Your task to perform on an android device: turn on data saver in the chrome app Image 0: 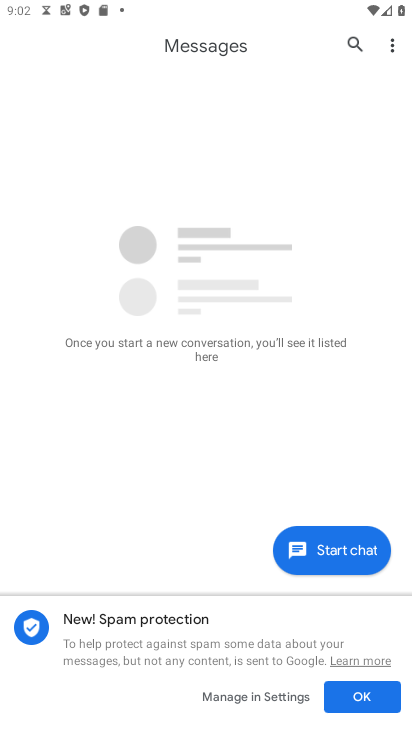
Step 0: press home button
Your task to perform on an android device: turn on data saver in the chrome app Image 1: 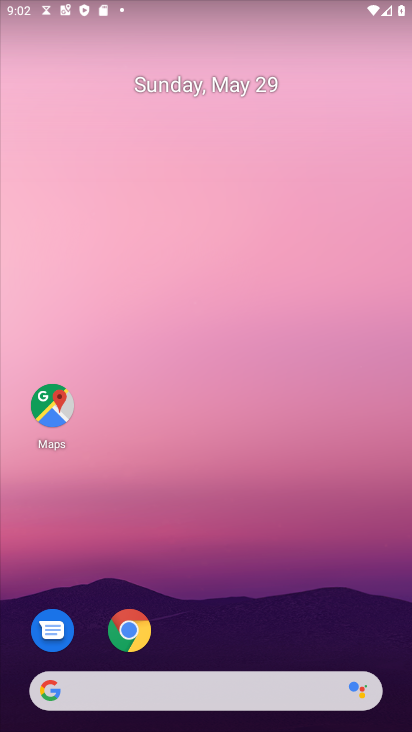
Step 1: click (124, 636)
Your task to perform on an android device: turn on data saver in the chrome app Image 2: 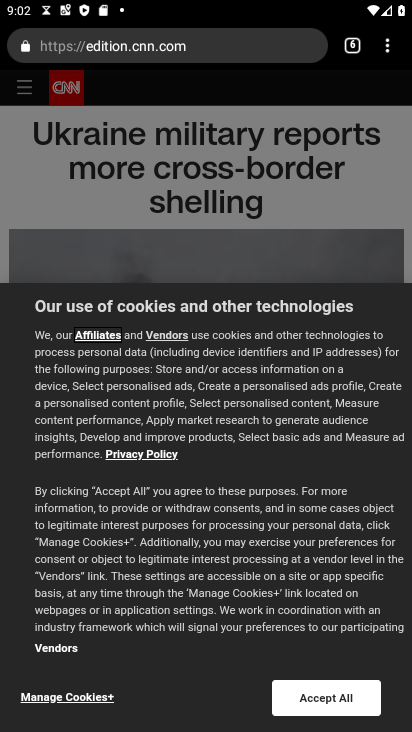
Step 2: click (392, 51)
Your task to perform on an android device: turn on data saver in the chrome app Image 3: 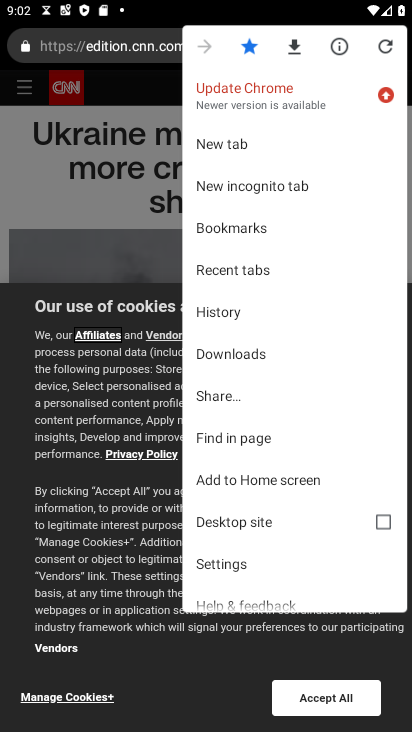
Step 3: click (243, 566)
Your task to perform on an android device: turn on data saver in the chrome app Image 4: 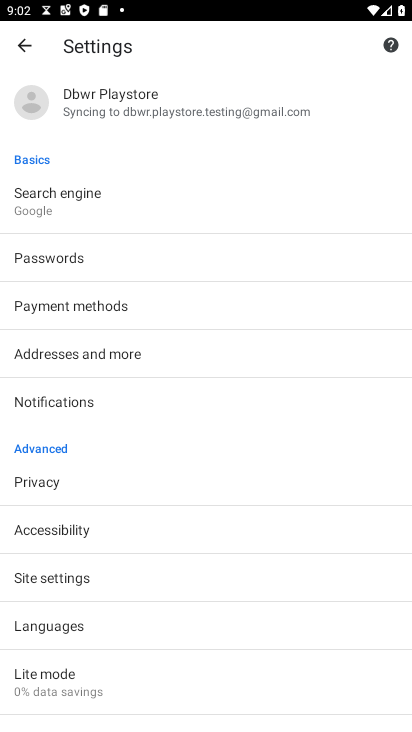
Step 4: click (69, 680)
Your task to perform on an android device: turn on data saver in the chrome app Image 5: 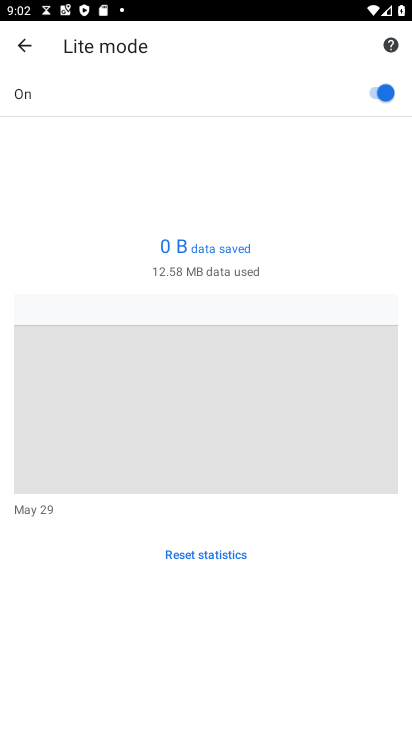
Step 5: task complete